Your task to perform on an android device: Search for vegetarian restaurants on Maps Image 0: 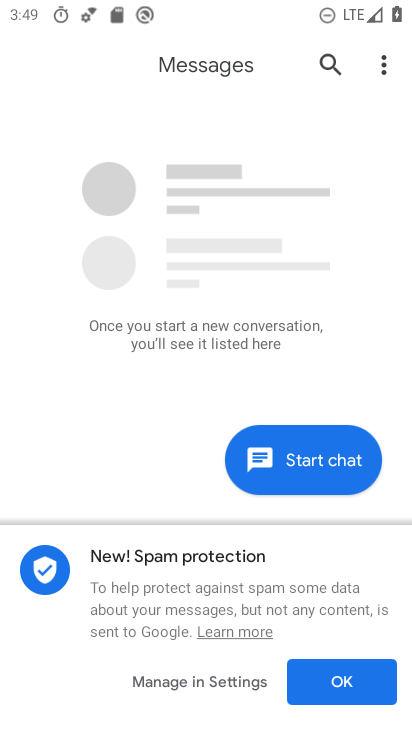
Step 0: press home button
Your task to perform on an android device: Search for vegetarian restaurants on Maps Image 1: 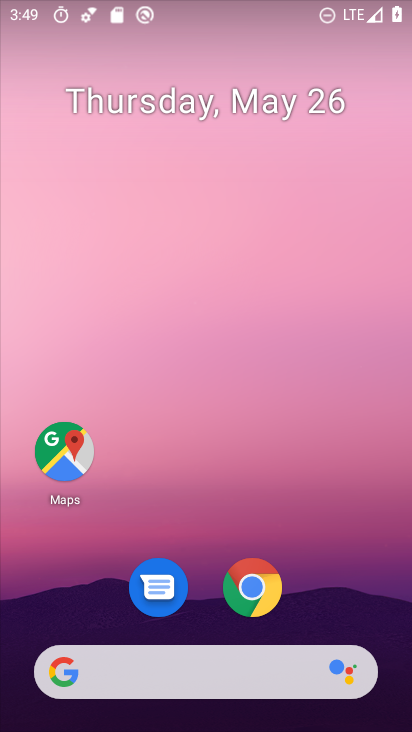
Step 1: click (71, 443)
Your task to perform on an android device: Search for vegetarian restaurants on Maps Image 2: 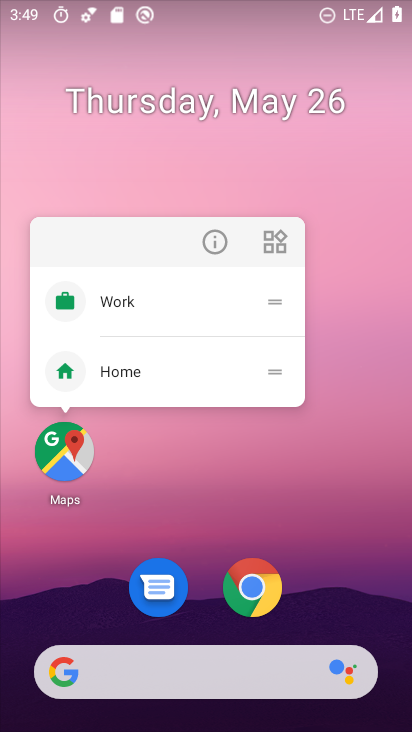
Step 2: click (68, 445)
Your task to perform on an android device: Search for vegetarian restaurants on Maps Image 3: 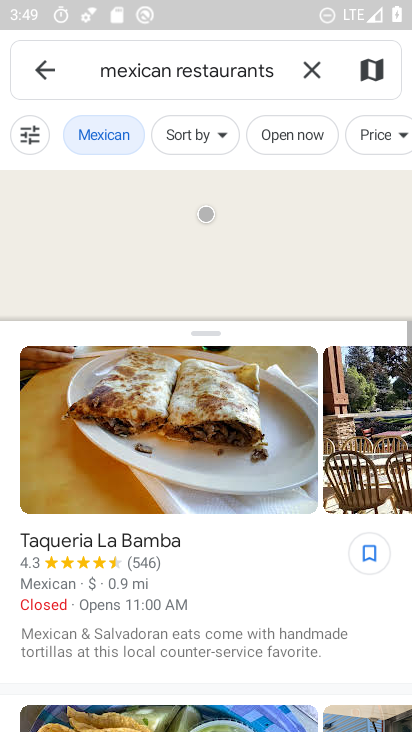
Step 3: click (195, 76)
Your task to perform on an android device: Search for vegetarian restaurants on Maps Image 4: 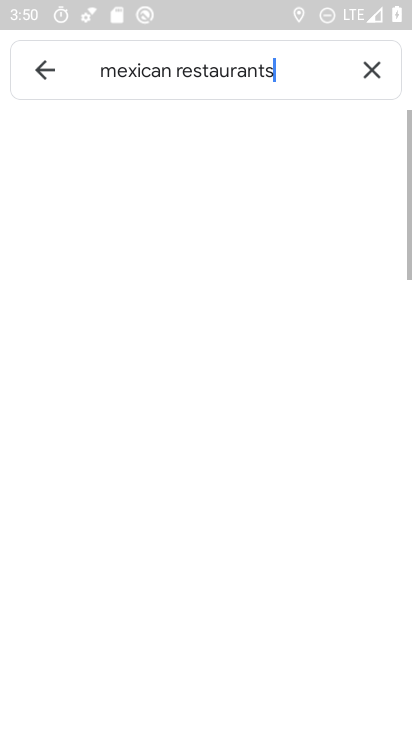
Step 4: click (378, 63)
Your task to perform on an android device: Search for vegetarian restaurants on Maps Image 5: 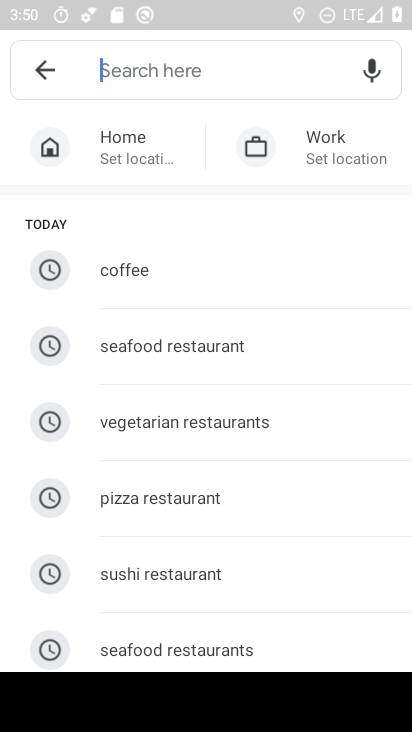
Step 5: click (227, 422)
Your task to perform on an android device: Search for vegetarian restaurants on Maps Image 6: 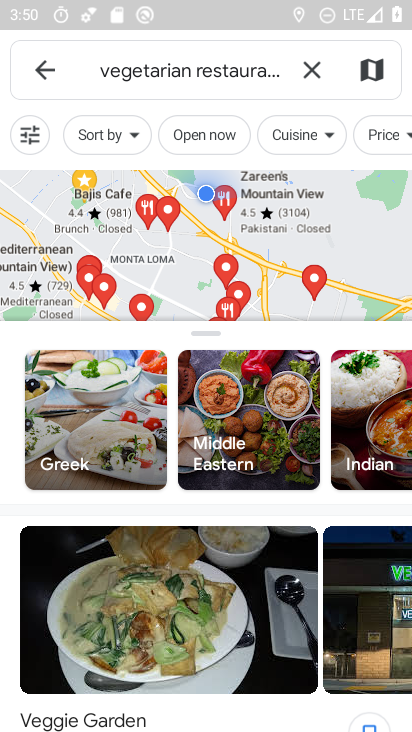
Step 6: task complete